Your task to perform on an android device: open a bookmark in the chrome app Image 0: 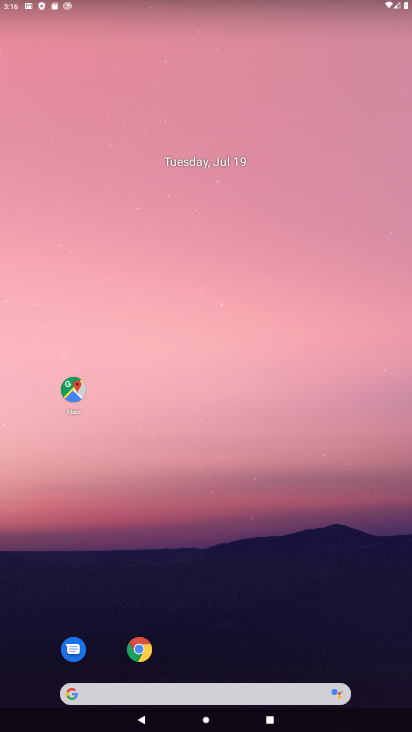
Step 0: click (139, 649)
Your task to perform on an android device: open a bookmark in the chrome app Image 1: 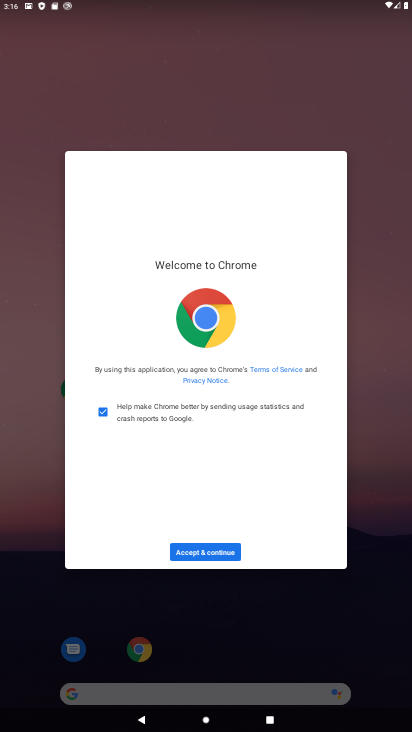
Step 1: click (219, 551)
Your task to perform on an android device: open a bookmark in the chrome app Image 2: 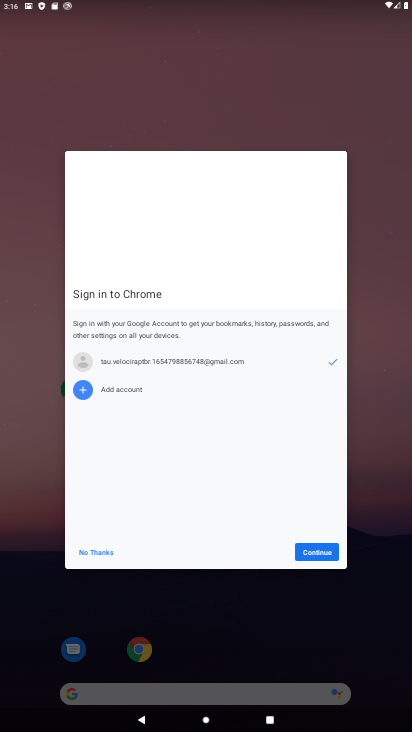
Step 2: click (323, 553)
Your task to perform on an android device: open a bookmark in the chrome app Image 3: 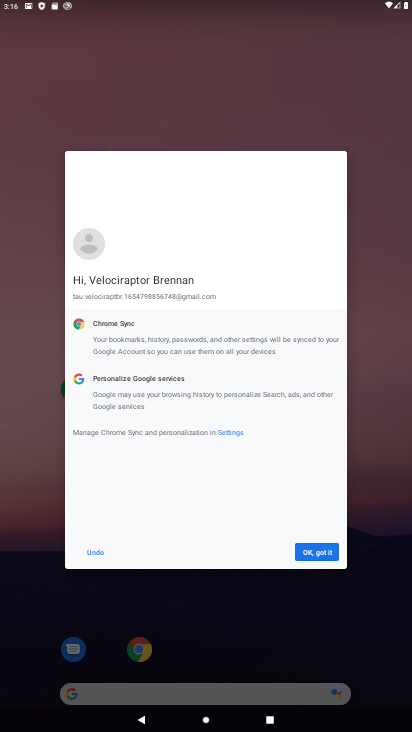
Step 3: click (322, 553)
Your task to perform on an android device: open a bookmark in the chrome app Image 4: 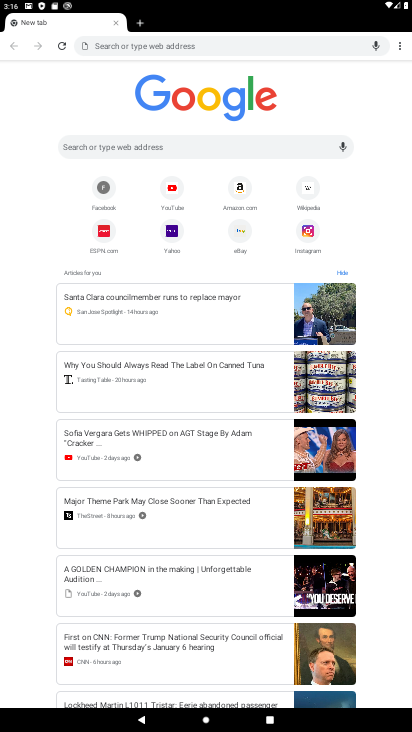
Step 4: click (399, 46)
Your task to perform on an android device: open a bookmark in the chrome app Image 5: 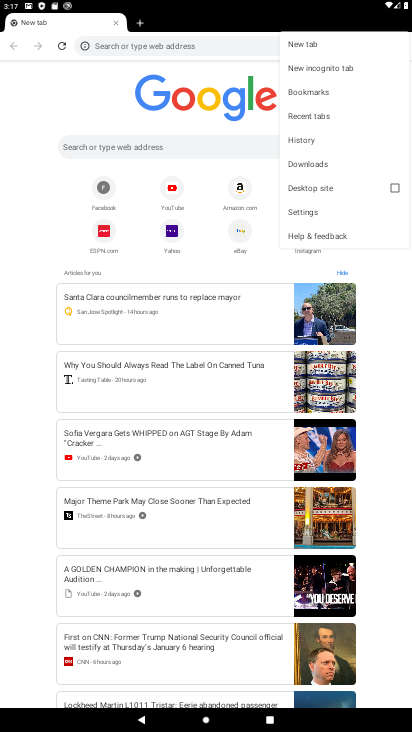
Step 5: click (305, 91)
Your task to perform on an android device: open a bookmark in the chrome app Image 6: 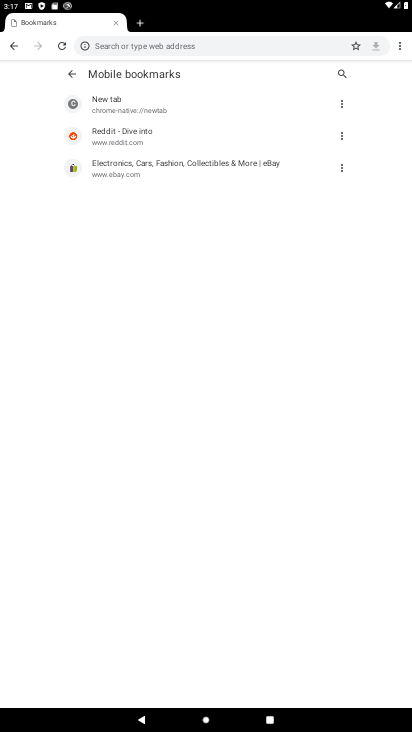
Step 6: click (121, 105)
Your task to perform on an android device: open a bookmark in the chrome app Image 7: 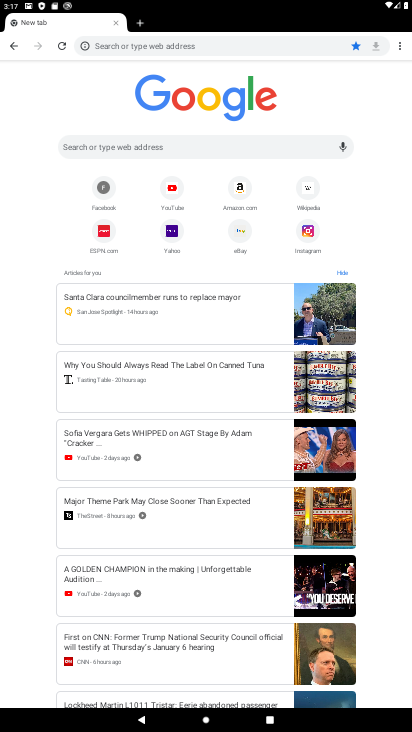
Step 7: task complete